Your task to perform on an android device: Search for sushi restaurants on Maps Image 0: 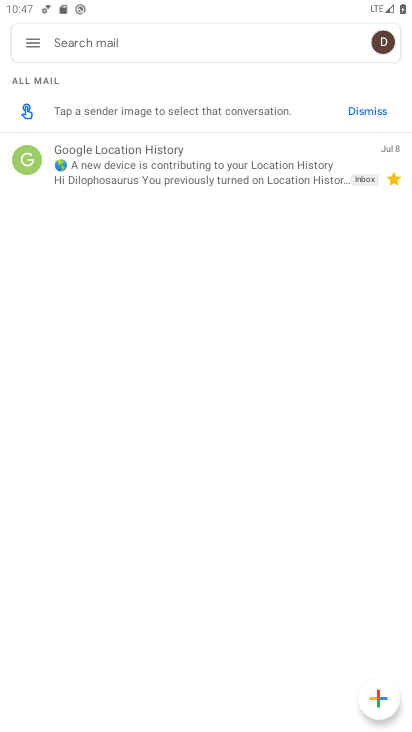
Step 0: press home button
Your task to perform on an android device: Search for sushi restaurants on Maps Image 1: 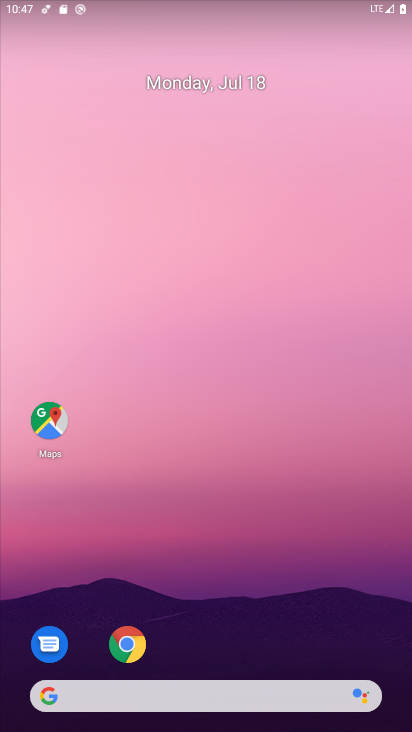
Step 1: drag from (343, 608) to (367, 139)
Your task to perform on an android device: Search for sushi restaurants on Maps Image 2: 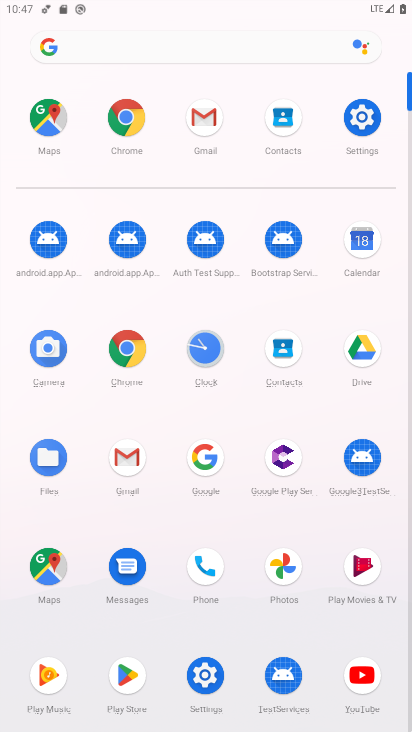
Step 2: click (52, 573)
Your task to perform on an android device: Search for sushi restaurants on Maps Image 3: 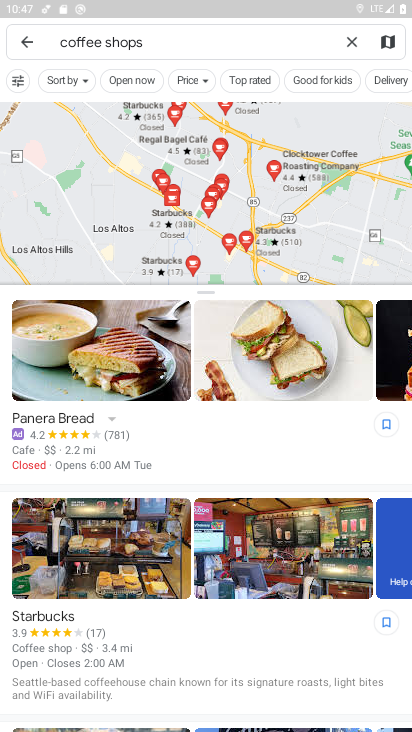
Step 3: press back button
Your task to perform on an android device: Search for sushi restaurants on Maps Image 4: 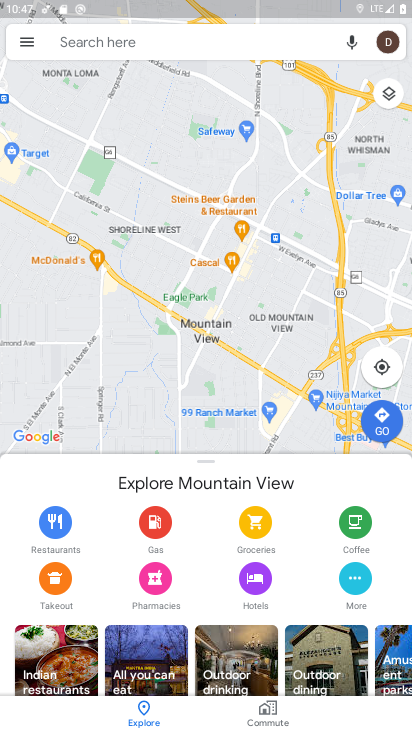
Step 4: click (228, 40)
Your task to perform on an android device: Search for sushi restaurants on Maps Image 5: 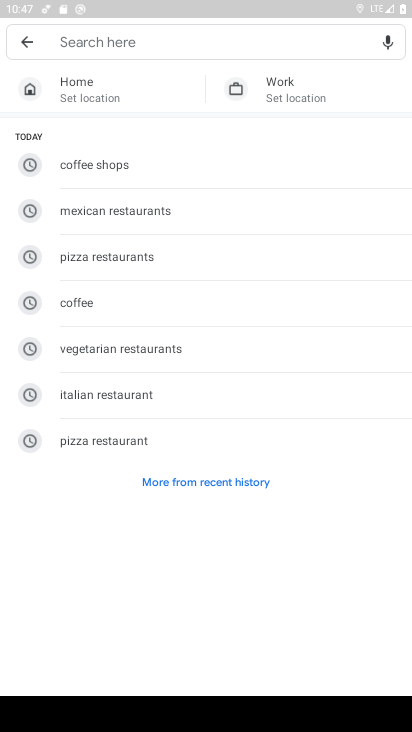
Step 5: type "sushi restaurants"
Your task to perform on an android device: Search for sushi restaurants on Maps Image 6: 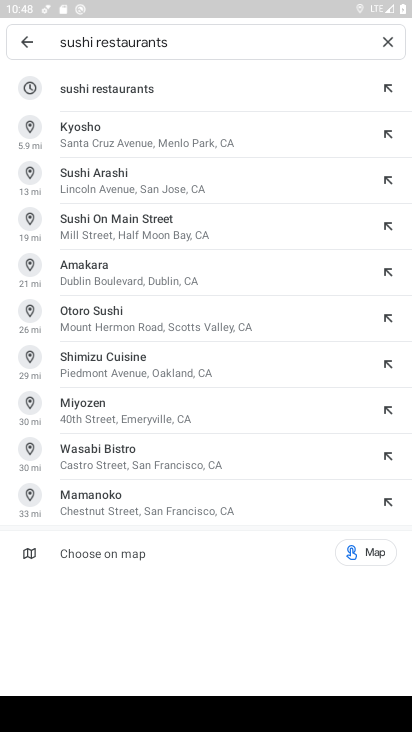
Step 6: click (210, 93)
Your task to perform on an android device: Search for sushi restaurants on Maps Image 7: 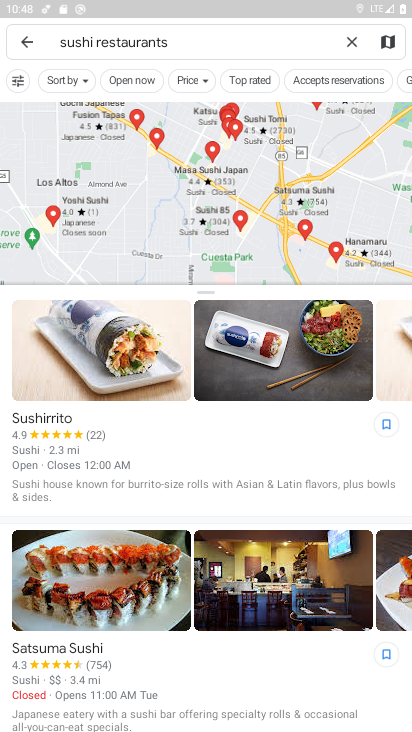
Step 7: task complete